Your task to perform on an android device: Open Google Chrome and open the bookmarks view Image 0: 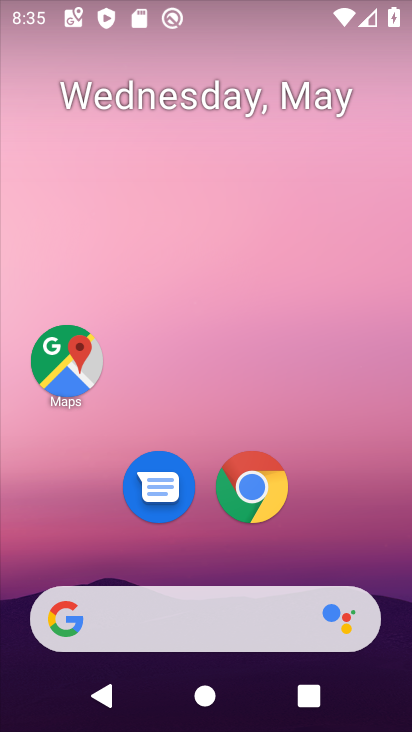
Step 0: press home button
Your task to perform on an android device: Open Google Chrome and open the bookmarks view Image 1: 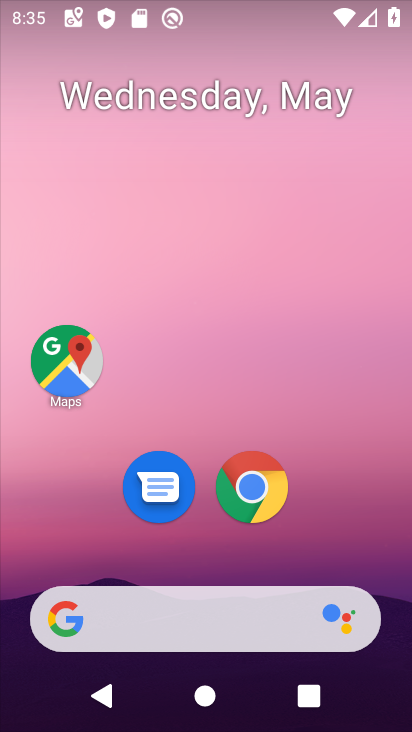
Step 1: click (248, 482)
Your task to perform on an android device: Open Google Chrome and open the bookmarks view Image 2: 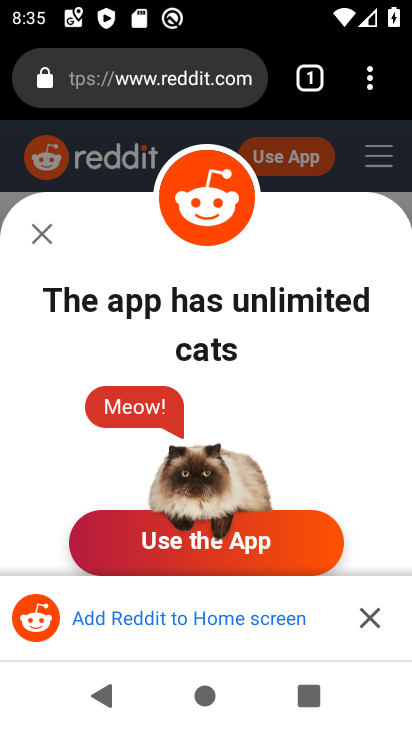
Step 2: click (362, 95)
Your task to perform on an android device: Open Google Chrome and open the bookmarks view Image 3: 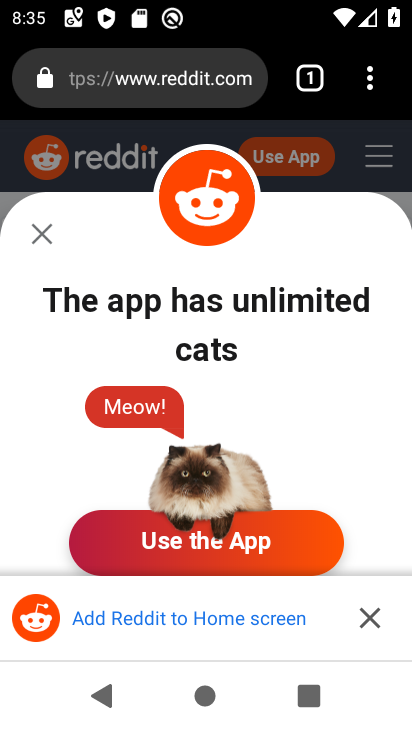
Step 3: click (357, 601)
Your task to perform on an android device: Open Google Chrome and open the bookmarks view Image 4: 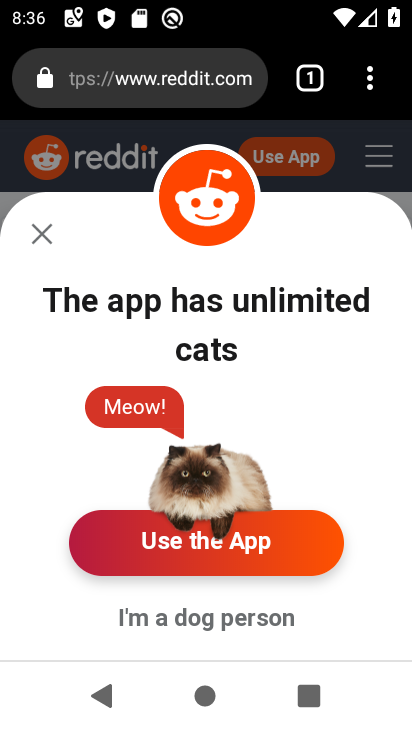
Step 4: click (35, 235)
Your task to perform on an android device: Open Google Chrome and open the bookmarks view Image 5: 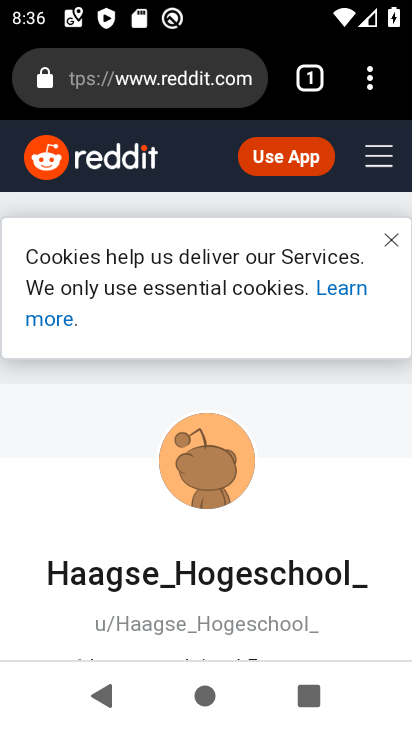
Step 5: click (385, 233)
Your task to perform on an android device: Open Google Chrome and open the bookmarks view Image 6: 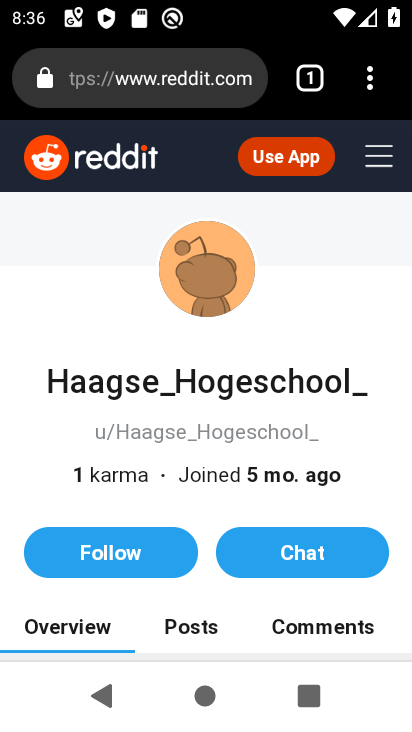
Step 6: click (368, 89)
Your task to perform on an android device: Open Google Chrome and open the bookmarks view Image 7: 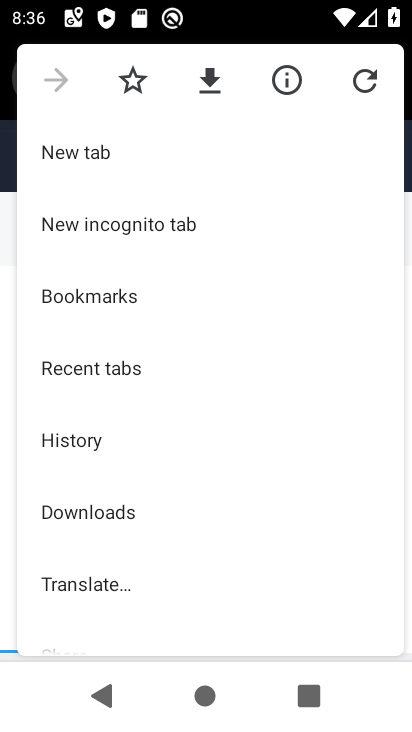
Step 7: click (144, 291)
Your task to perform on an android device: Open Google Chrome and open the bookmarks view Image 8: 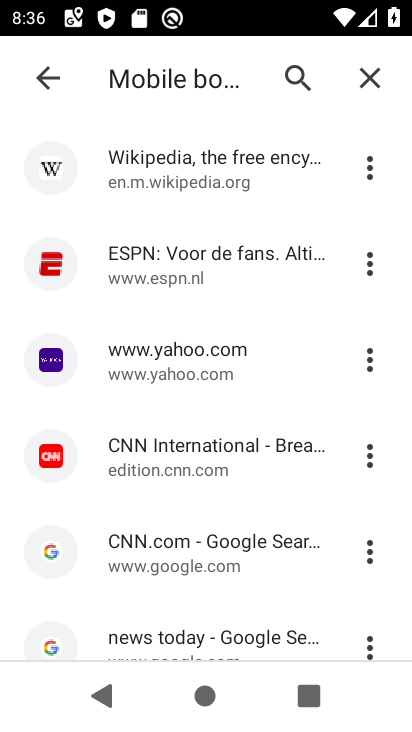
Step 8: click (145, 458)
Your task to perform on an android device: Open Google Chrome and open the bookmarks view Image 9: 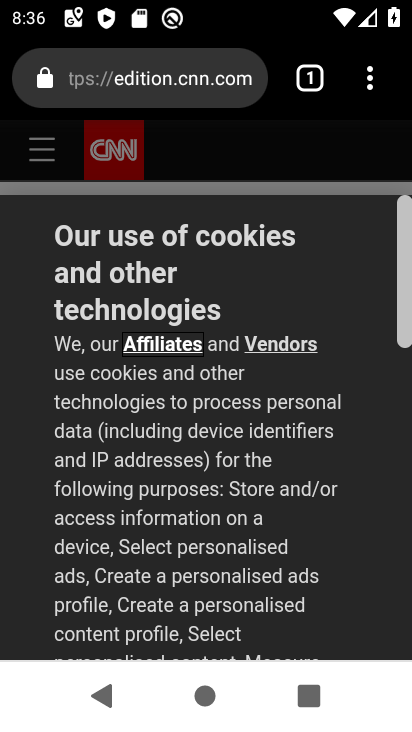
Step 9: task complete